Your task to perform on an android device: open app "Chime – Mobile Banking" Image 0: 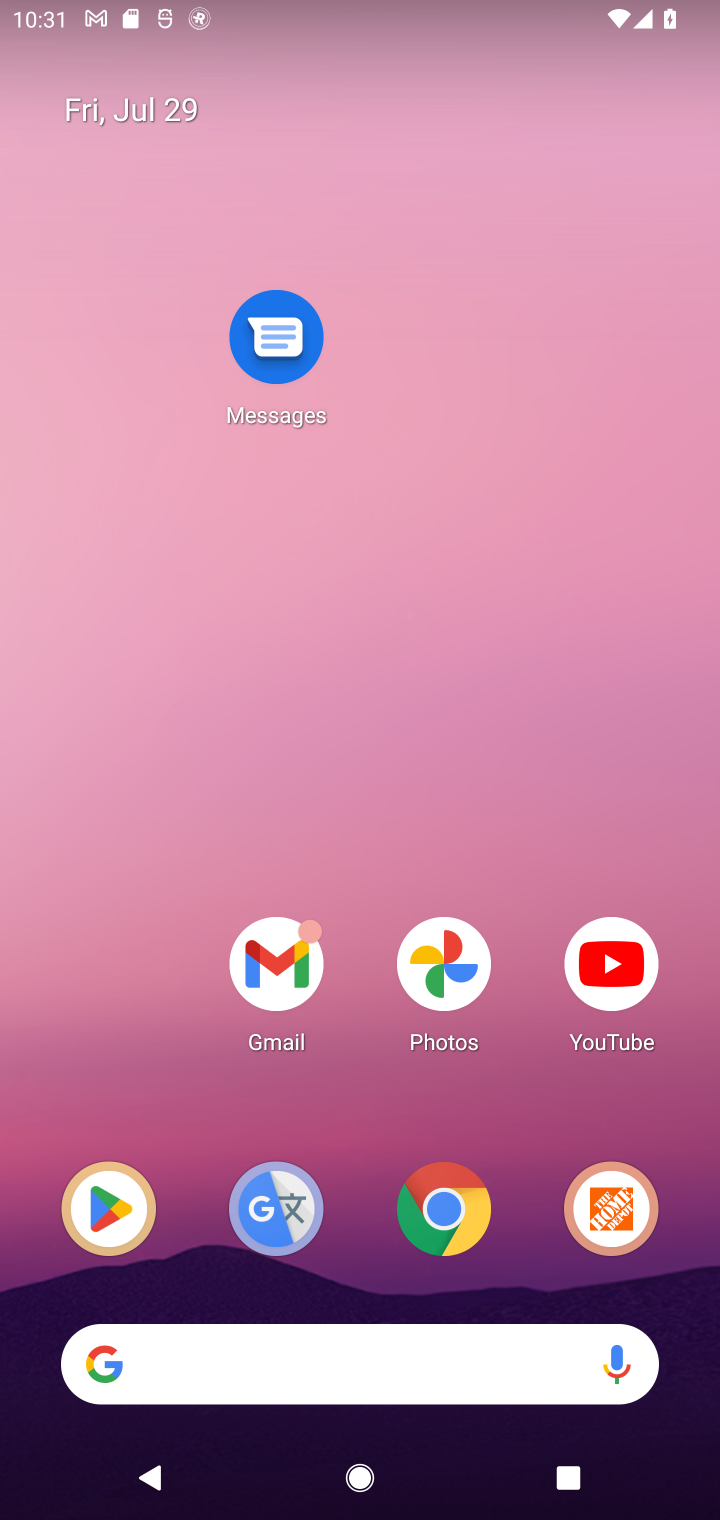
Step 0: drag from (307, 1350) to (494, 39)
Your task to perform on an android device: open app "Chime – Mobile Banking" Image 1: 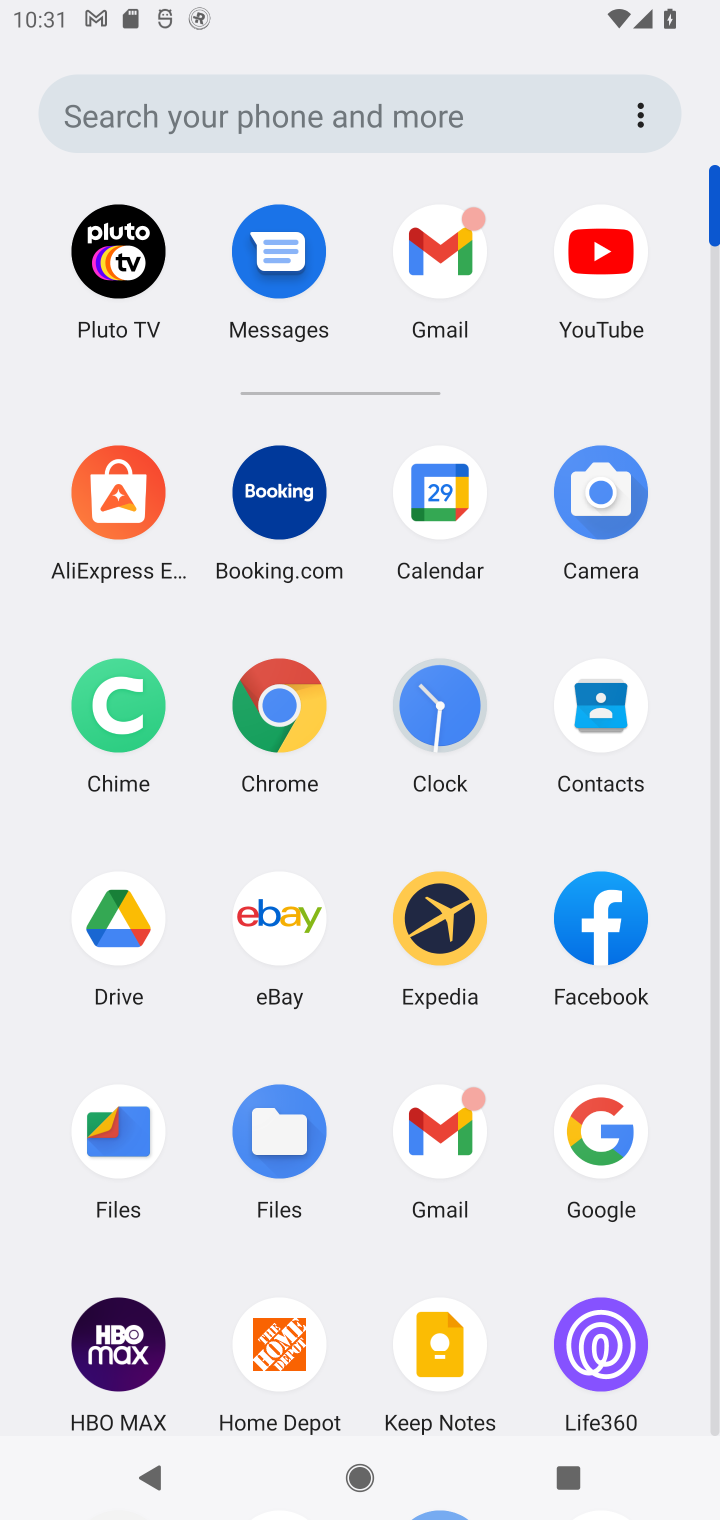
Step 1: drag from (507, 1199) to (583, 381)
Your task to perform on an android device: open app "Chime – Mobile Banking" Image 2: 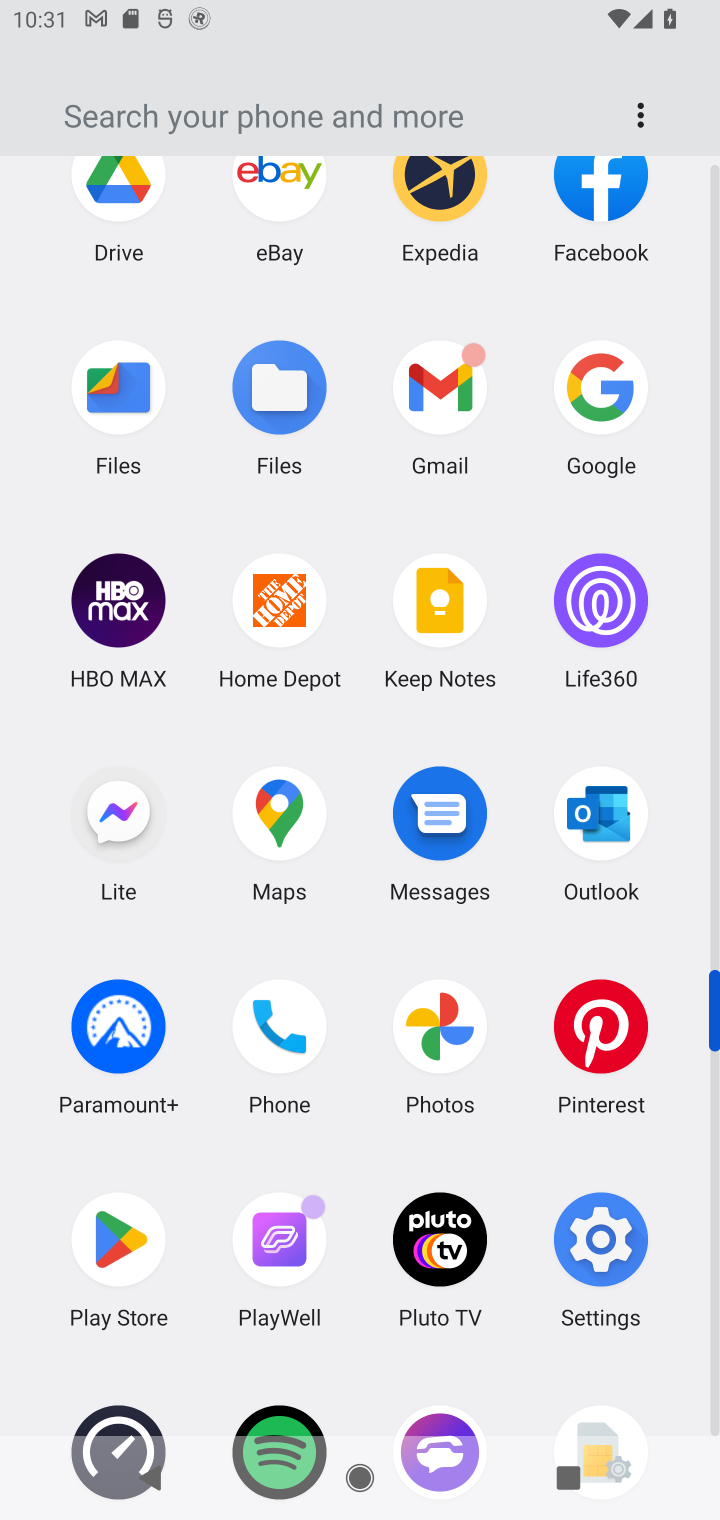
Step 2: click (128, 1241)
Your task to perform on an android device: open app "Chime – Mobile Banking" Image 3: 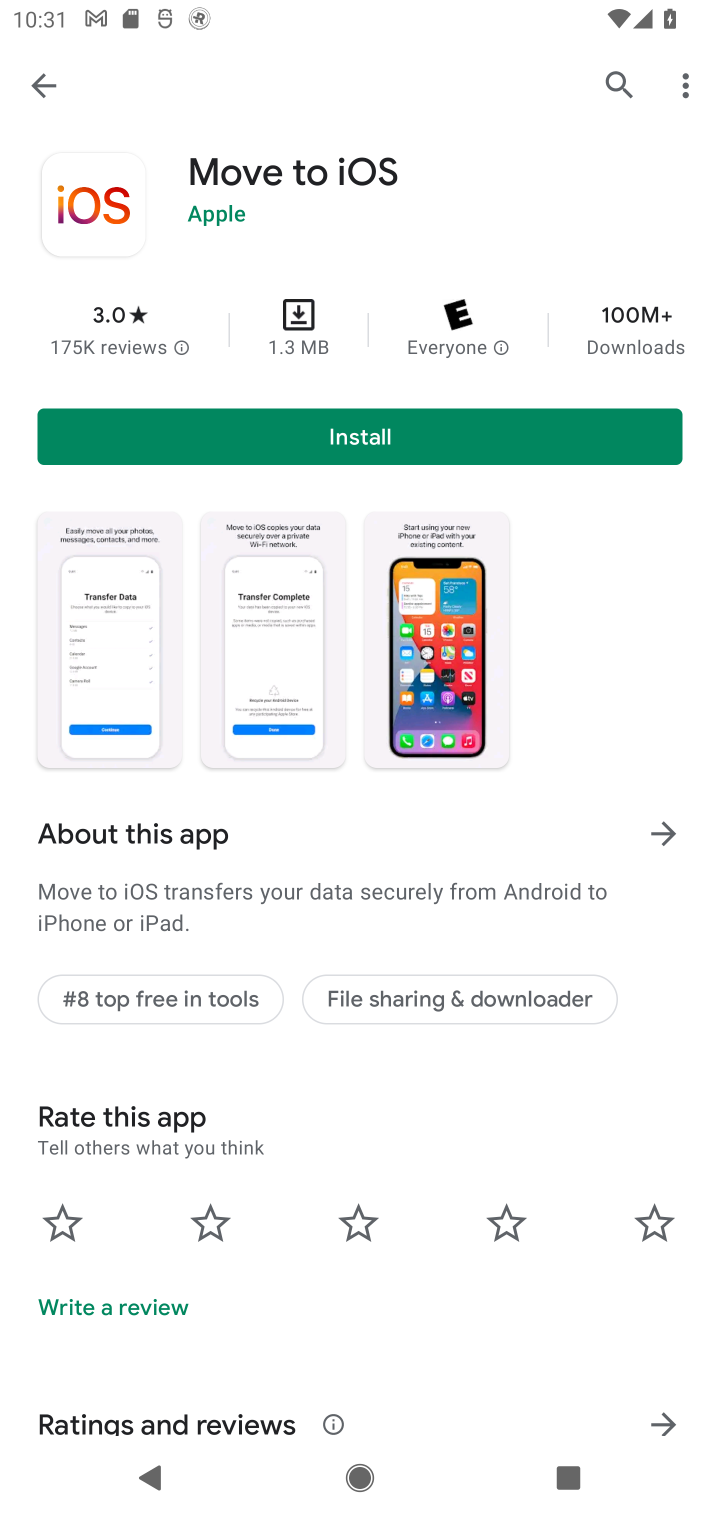
Step 3: click (618, 81)
Your task to perform on an android device: open app "Chime – Mobile Banking" Image 4: 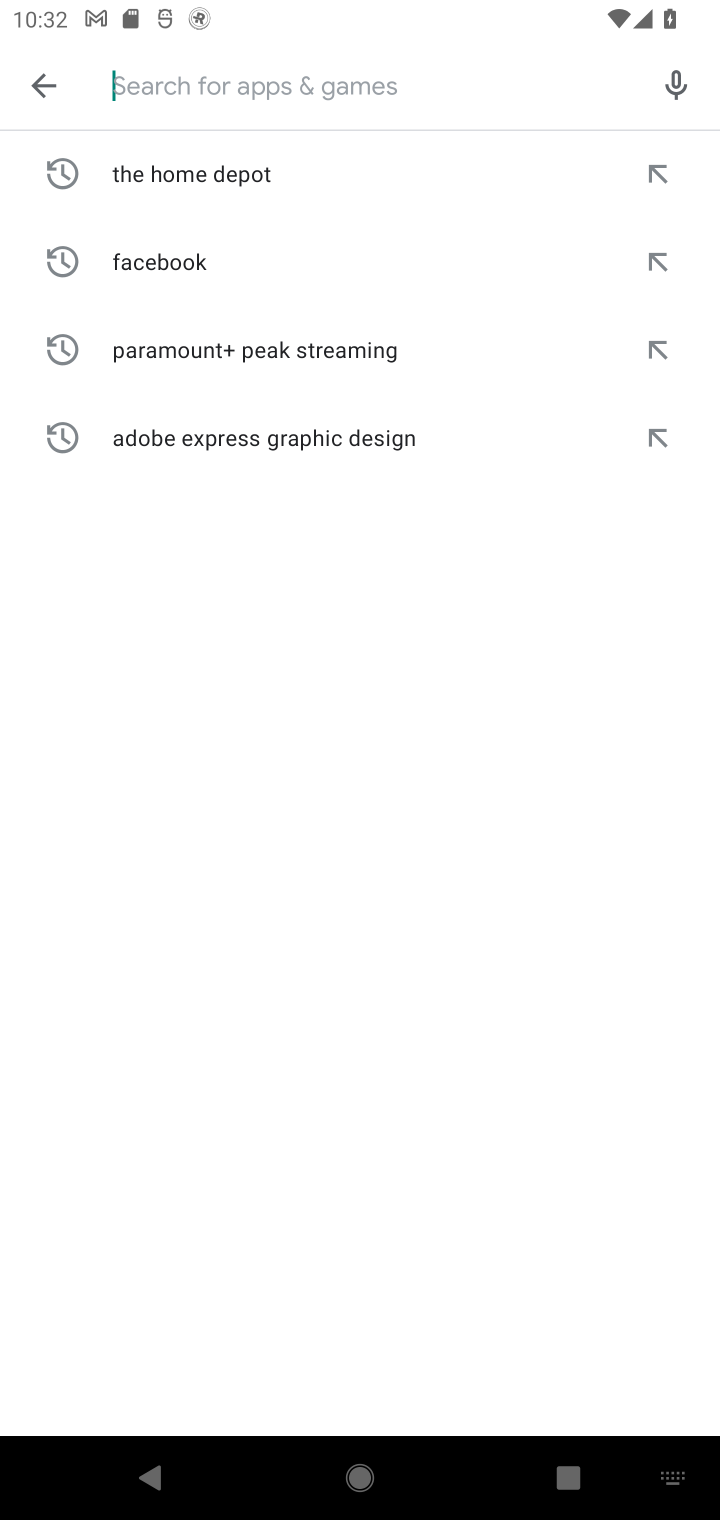
Step 4: type "Chime - Mobile Banking"
Your task to perform on an android device: open app "Chime – Mobile Banking" Image 5: 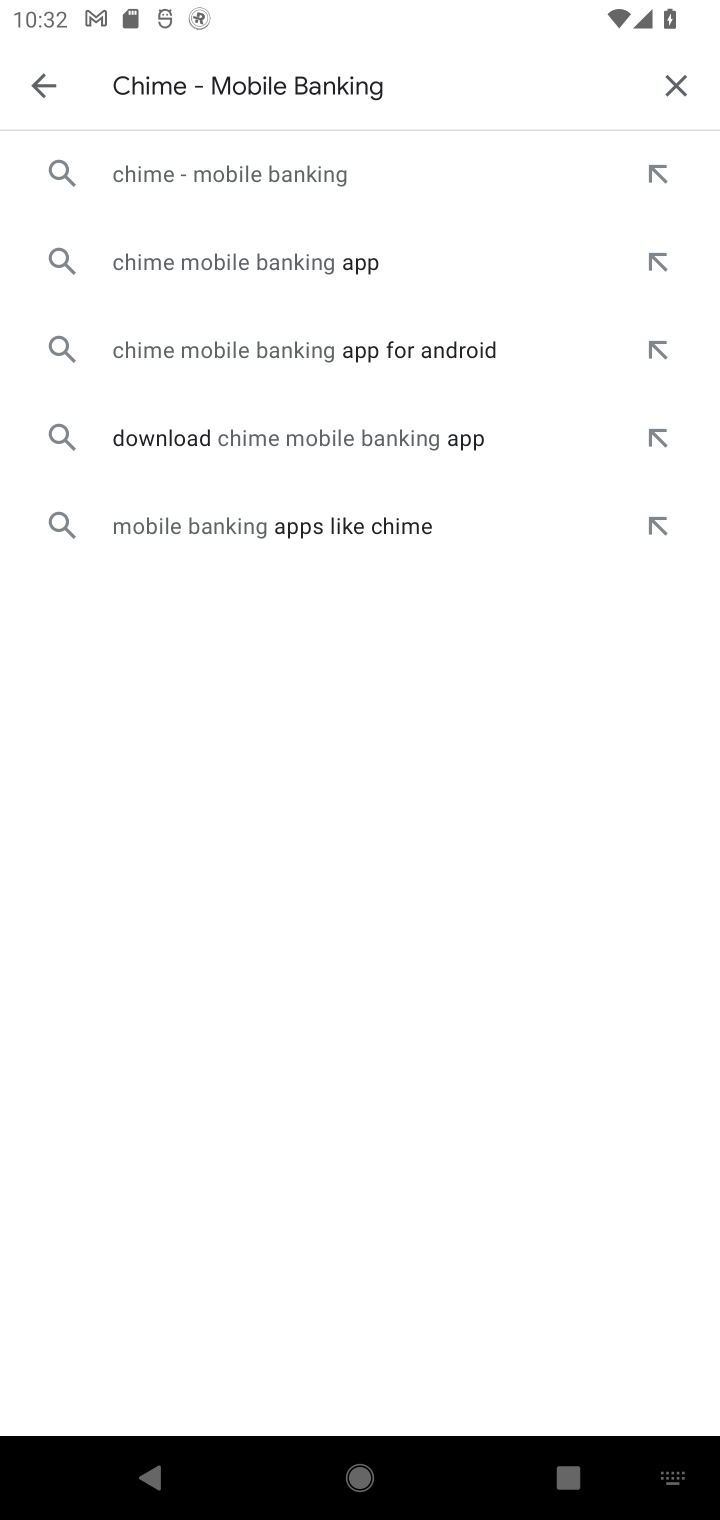
Step 5: click (323, 167)
Your task to perform on an android device: open app "Chime – Mobile Banking" Image 6: 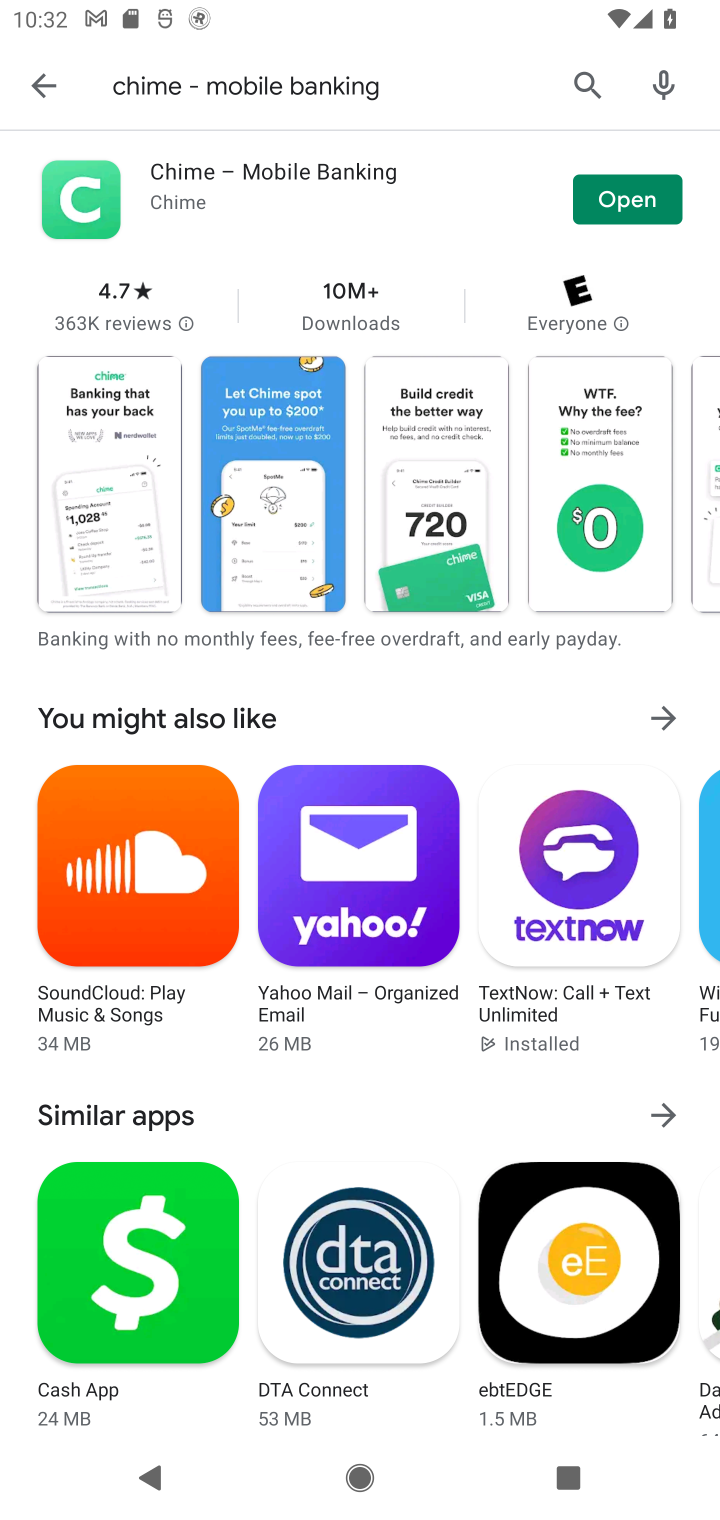
Step 6: click (646, 205)
Your task to perform on an android device: open app "Chime – Mobile Banking" Image 7: 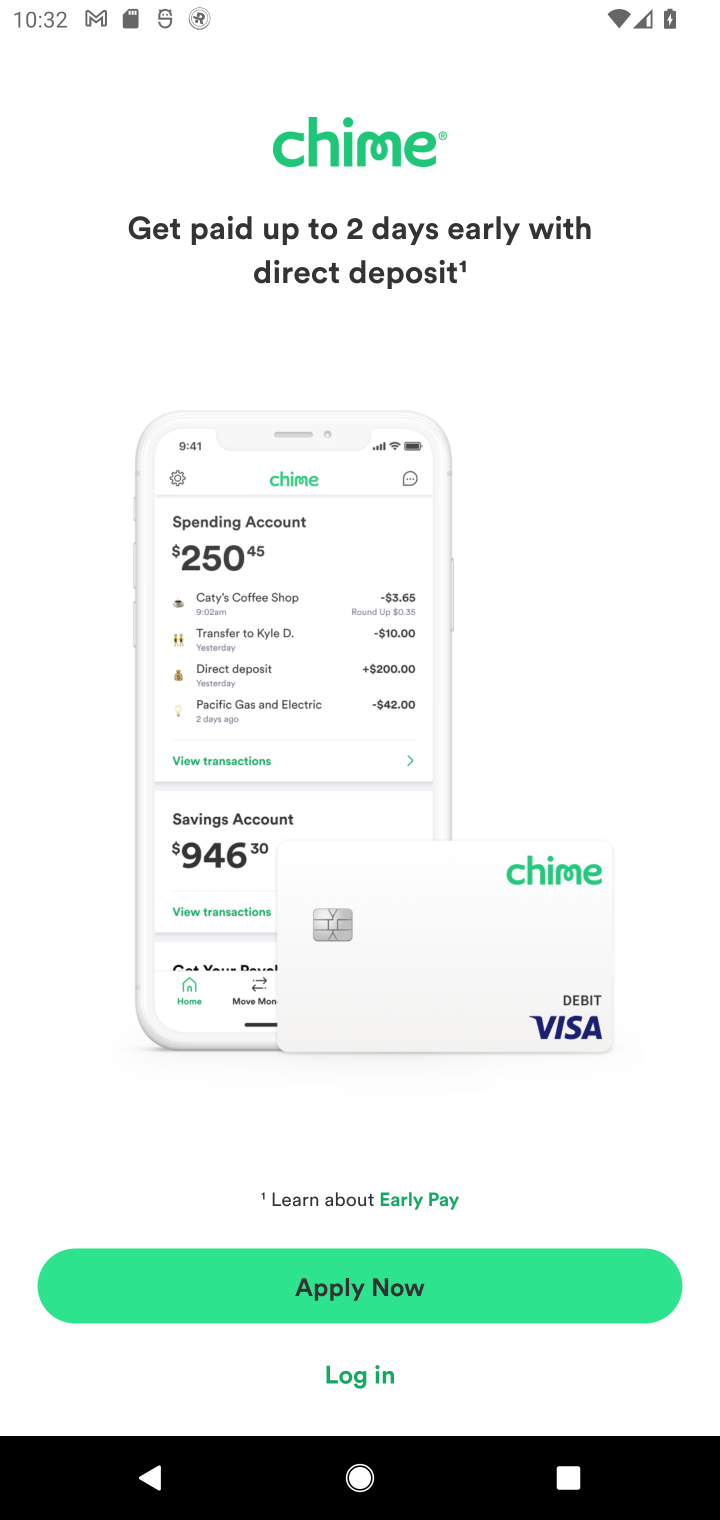
Step 7: task complete